Your task to perform on an android device: turn off airplane mode Image 0: 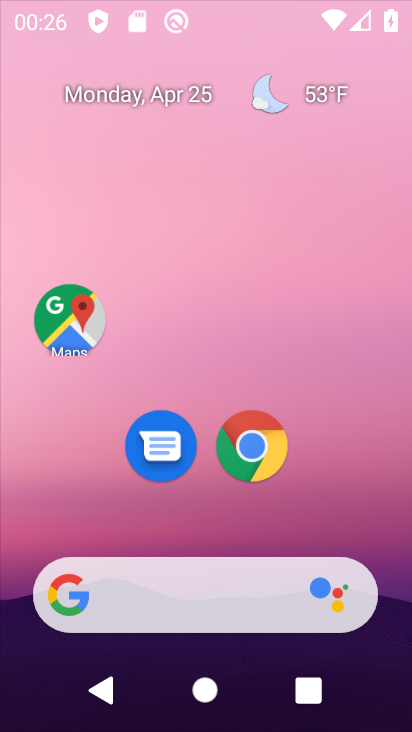
Step 0: drag from (268, 34) to (297, 6)
Your task to perform on an android device: turn off airplane mode Image 1: 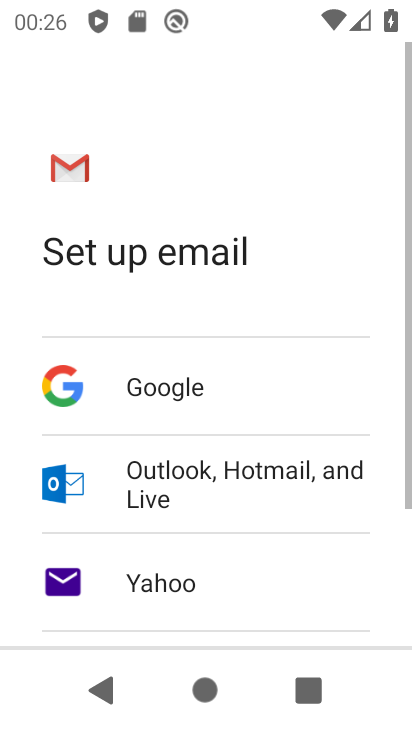
Step 1: press home button
Your task to perform on an android device: turn off airplane mode Image 2: 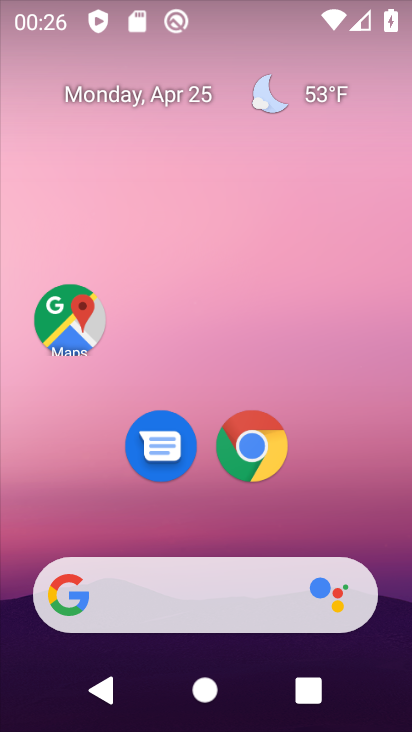
Step 2: drag from (194, 316) to (267, 13)
Your task to perform on an android device: turn off airplane mode Image 3: 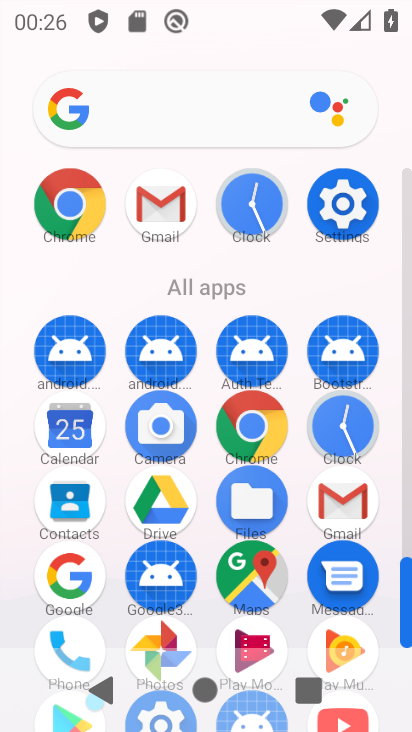
Step 3: click (327, 212)
Your task to perform on an android device: turn off airplane mode Image 4: 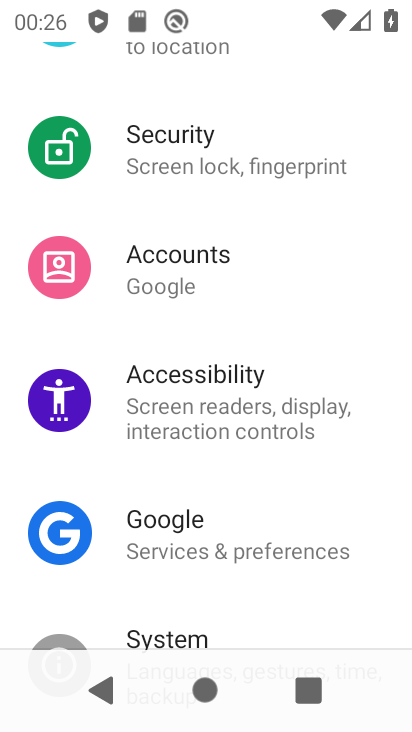
Step 4: drag from (238, 128) to (235, 709)
Your task to perform on an android device: turn off airplane mode Image 5: 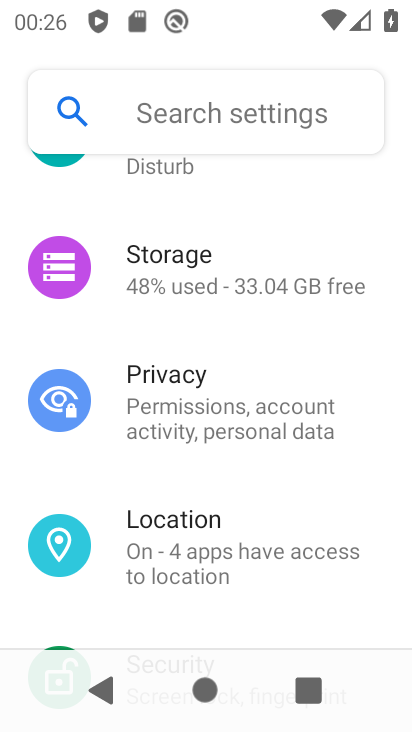
Step 5: drag from (247, 258) to (246, 677)
Your task to perform on an android device: turn off airplane mode Image 6: 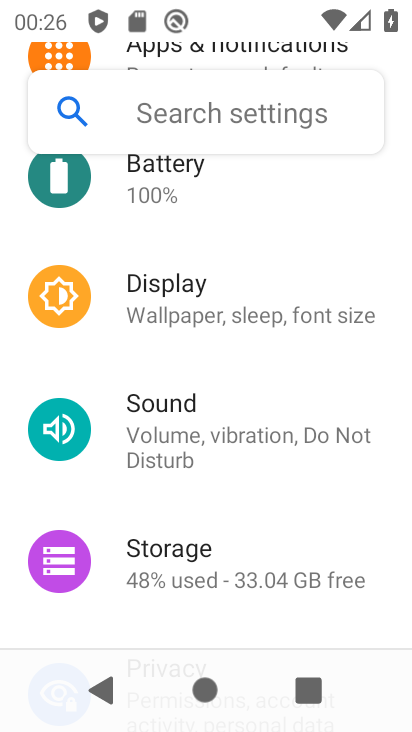
Step 6: drag from (268, 305) to (255, 714)
Your task to perform on an android device: turn off airplane mode Image 7: 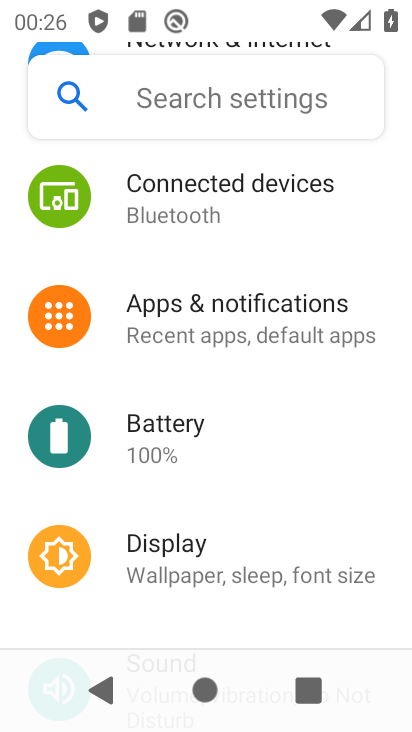
Step 7: drag from (230, 246) to (262, 730)
Your task to perform on an android device: turn off airplane mode Image 8: 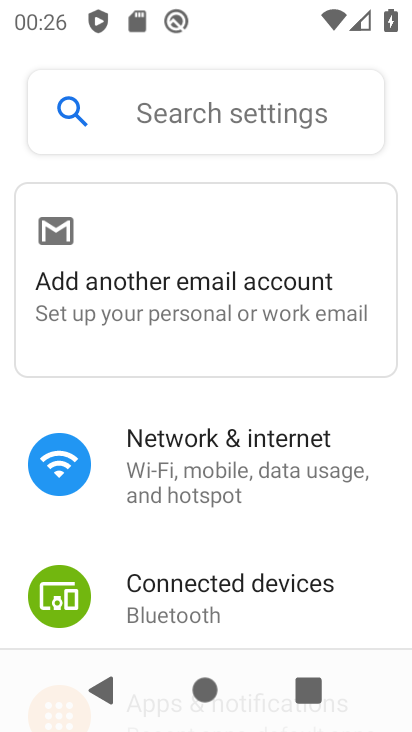
Step 8: click (206, 506)
Your task to perform on an android device: turn off airplane mode Image 9: 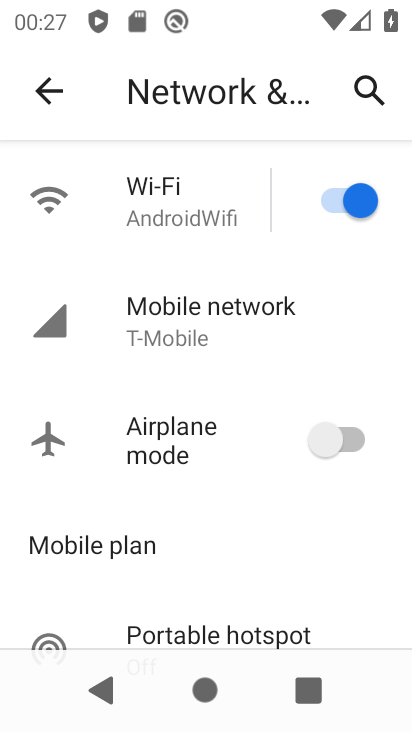
Step 9: click (319, 438)
Your task to perform on an android device: turn off airplane mode Image 10: 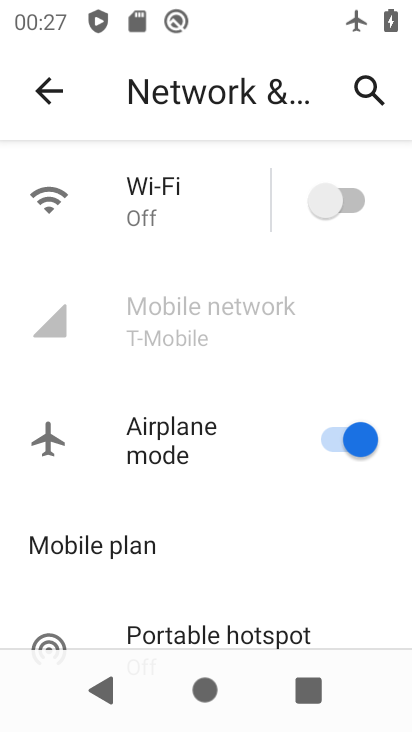
Step 10: click (310, 442)
Your task to perform on an android device: turn off airplane mode Image 11: 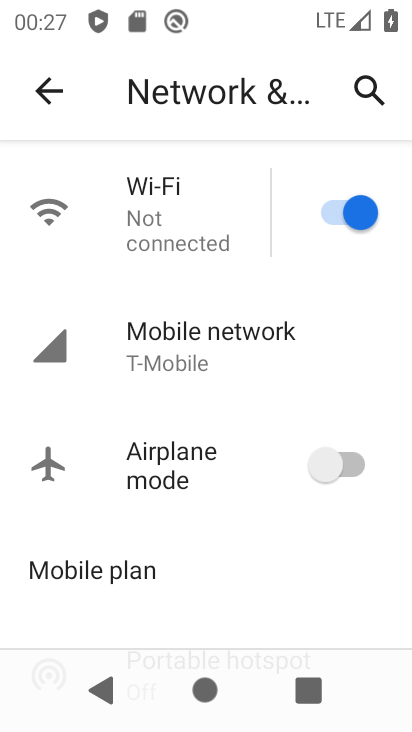
Step 11: task complete